Your task to perform on an android device: turn on location history Image 0: 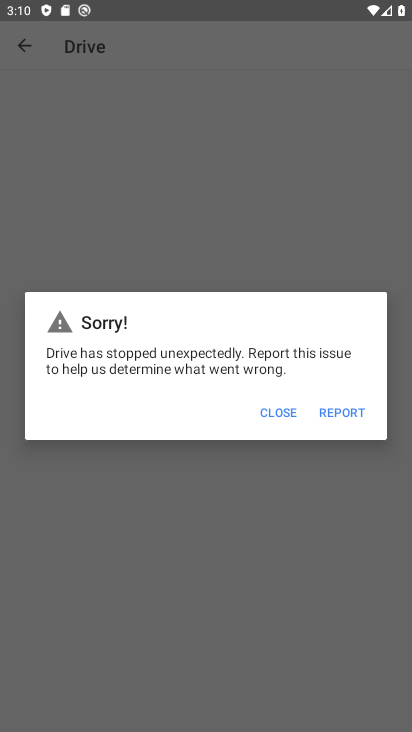
Step 0: click (258, 414)
Your task to perform on an android device: turn on location history Image 1: 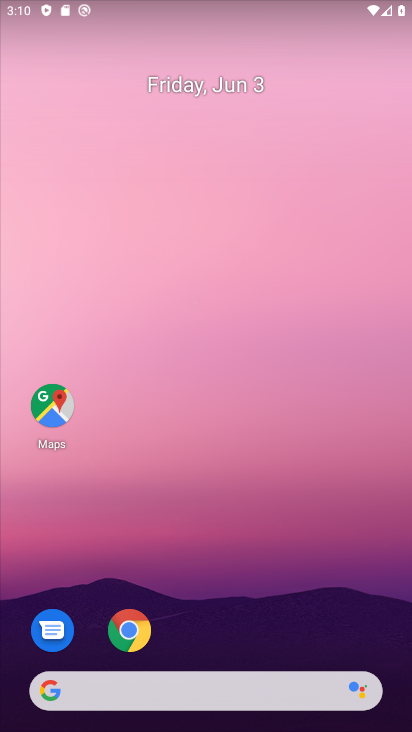
Step 1: drag from (324, 711) to (329, 89)
Your task to perform on an android device: turn on location history Image 2: 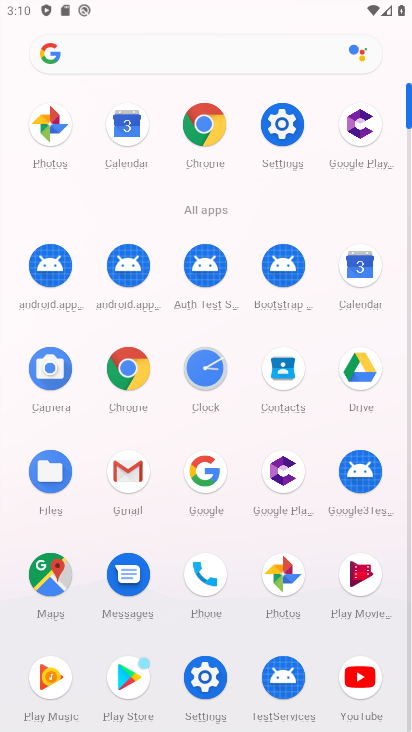
Step 2: click (52, 577)
Your task to perform on an android device: turn on location history Image 3: 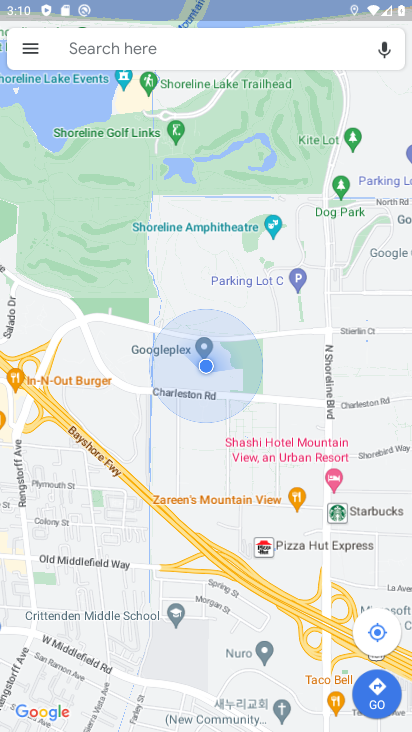
Step 3: click (37, 55)
Your task to perform on an android device: turn on location history Image 4: 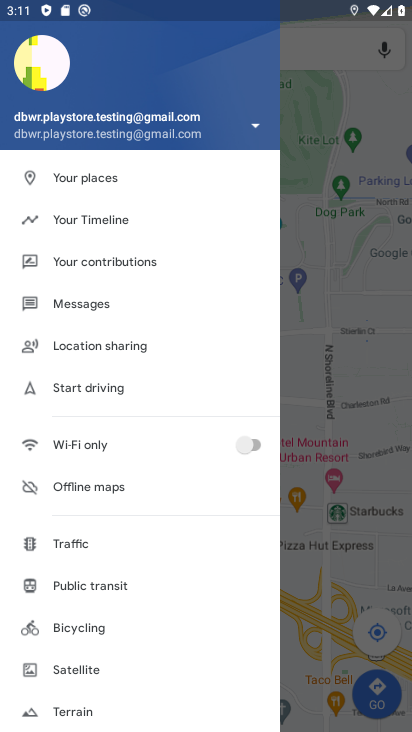
Step 4: click (100, 226)
Your task to perform on an android device: turn on location history Image 5: 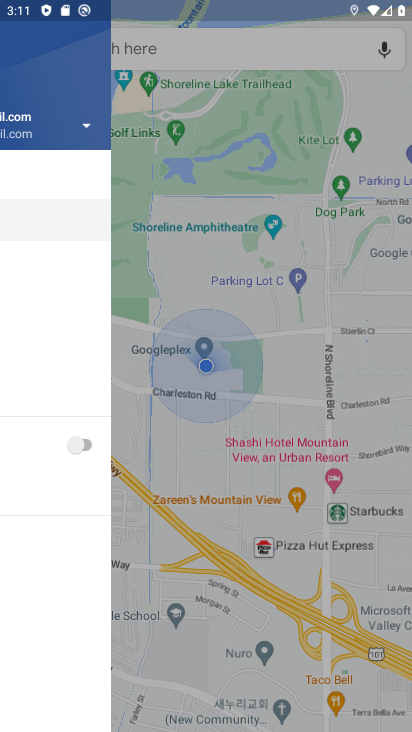
Step 5: click (92, 216)
Your task to perform on an android device: turn on location history Image 6: 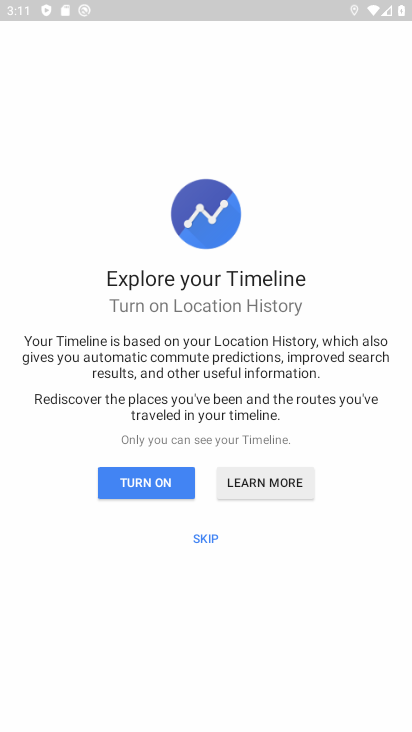
Step 6: click (92, 216)
Your task to perform on an android device: turn on location history Image 7: 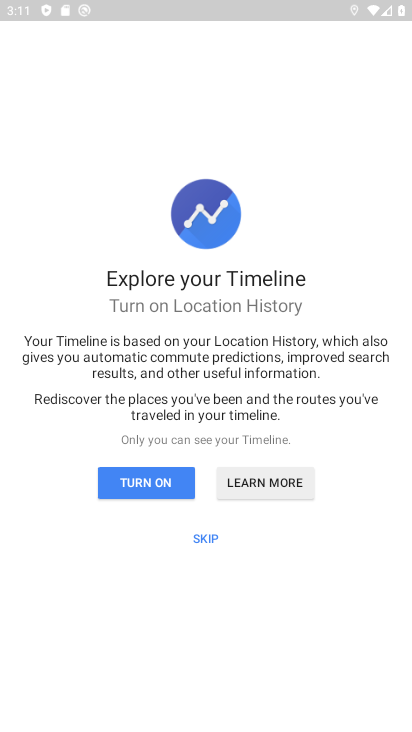
Step 7: click (92, 216)
Your task to perform on an android device: turn on location history Image 8: 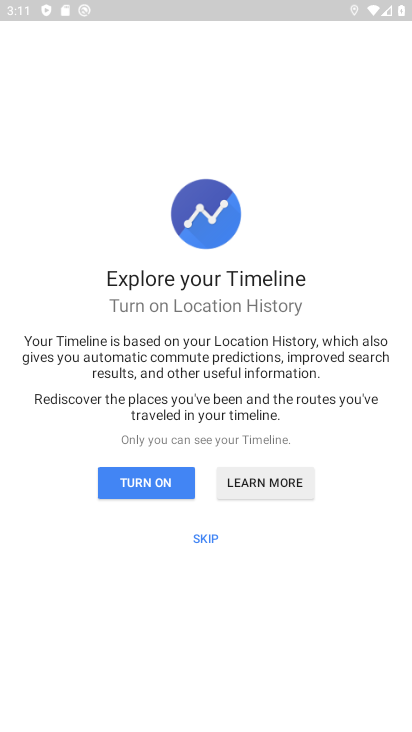
Step 8: click (154, 480)
Your task to perform on an android device: turn on location history Image 9: 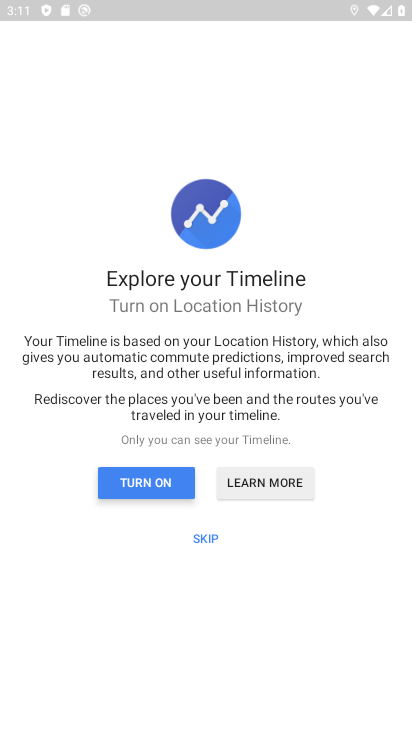
Step 9: click (154, 480)
Your task to perform on an android device: turn on location history Image 10: 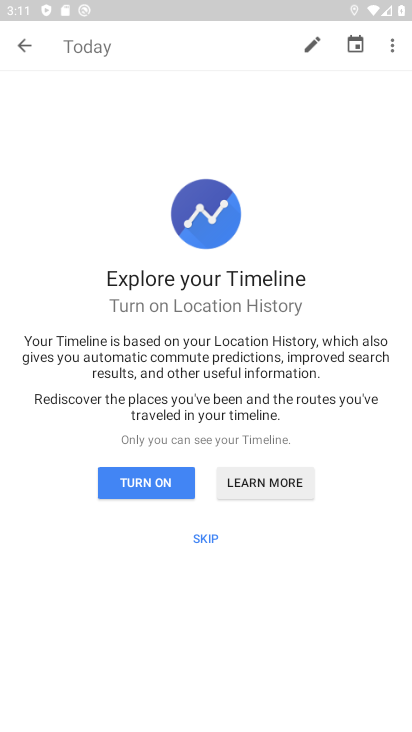
Step 10: click (154, 480)
Your task to perform on an android device: turn on location history Image 11: 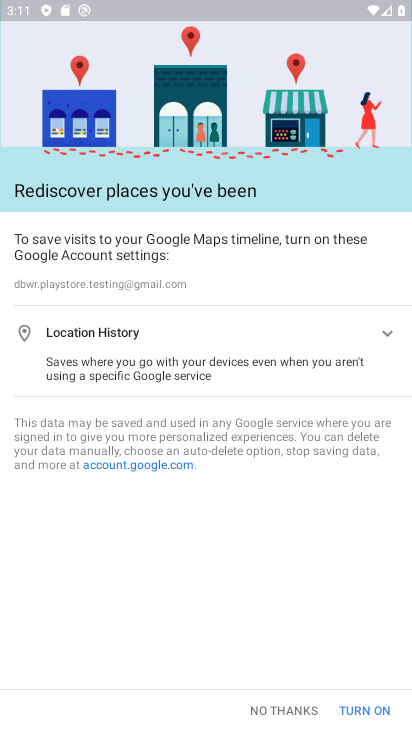
Step 11: click (359, 708)
Your task to perform on an android device: turn on location history Image 12: 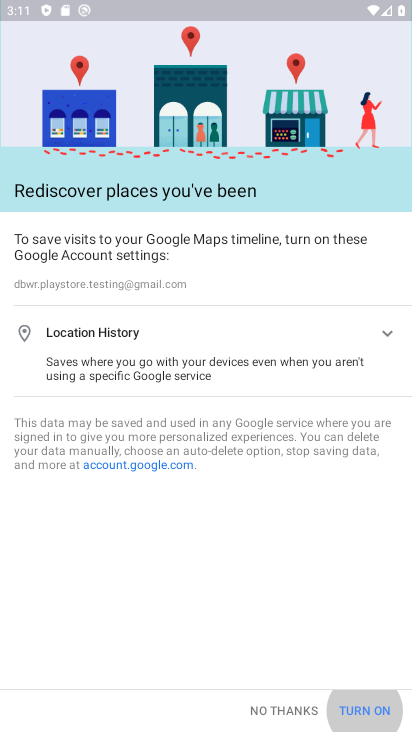
Step 12: drag from (359, 709) to (328, 683)
Your task to perform on an android device: turn on location history Image 13: 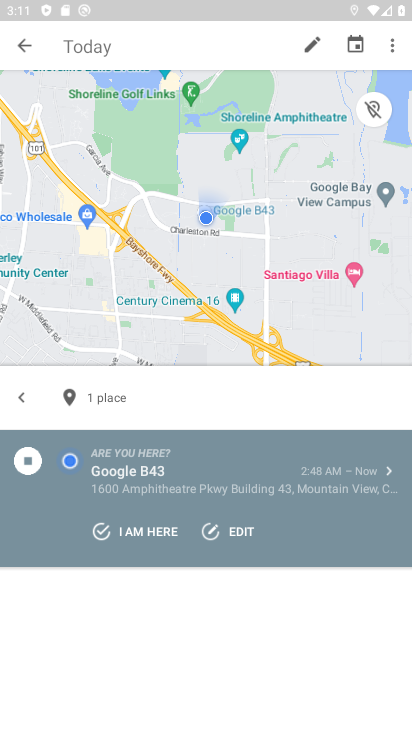
Step 13: click (328, 683)
Your task to perform on an android device: turn on location history Image 14: 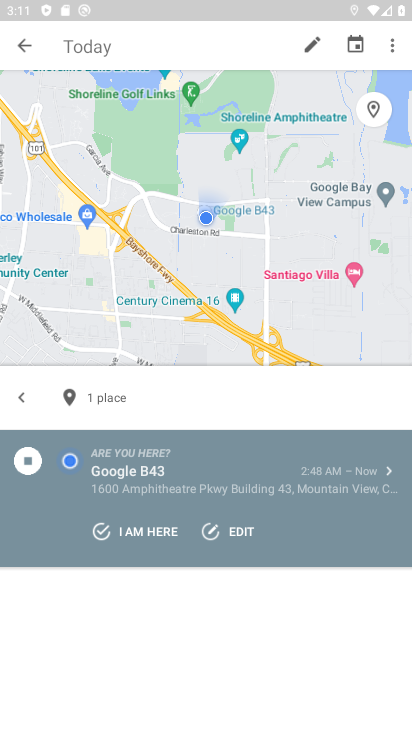
Step 14: task complete